Your task to perform on an android device: Open Android settings Image 0: 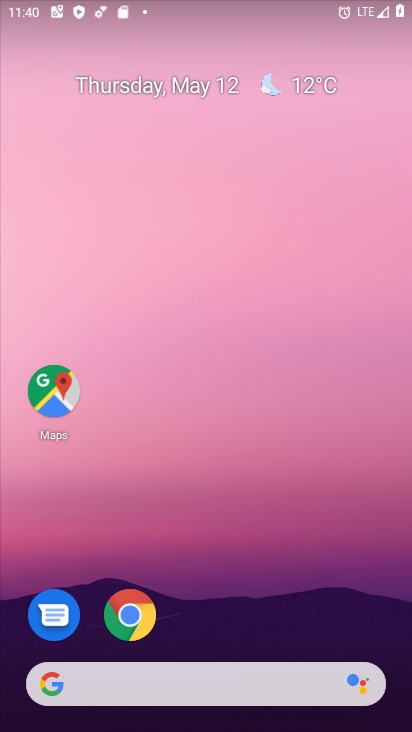
Step 0: drag from (255, 516) to (342, 42)
Your task to perform on an android device: Open Android settings Image 1: 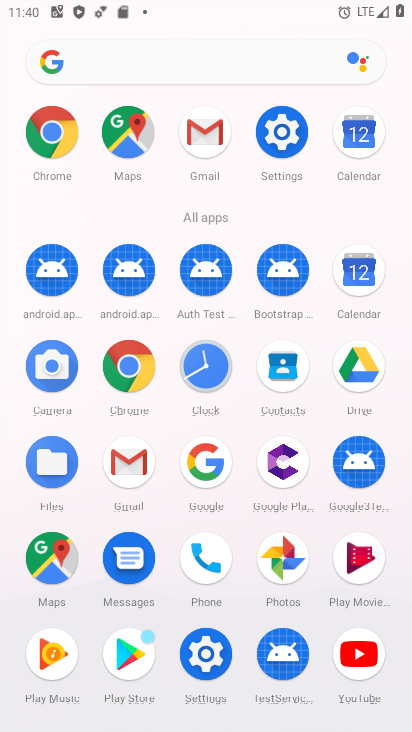
Step 1: click (290, 137)
Your task to perform on an android device: Open Android settings Image 2: 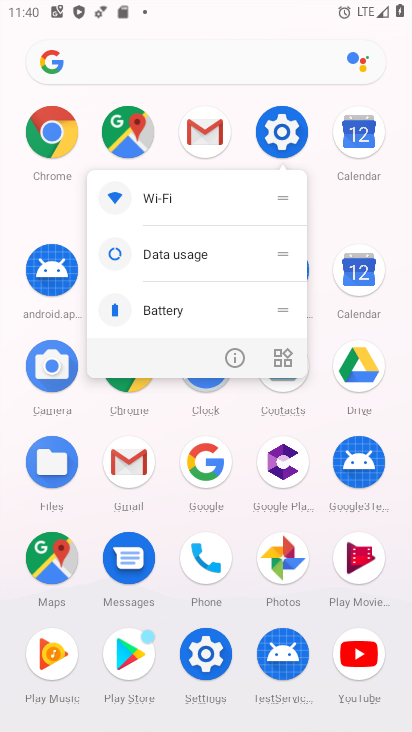
Step 2: click (290, 117)
Your task to perform on an android device: Open Android settings Image 3: 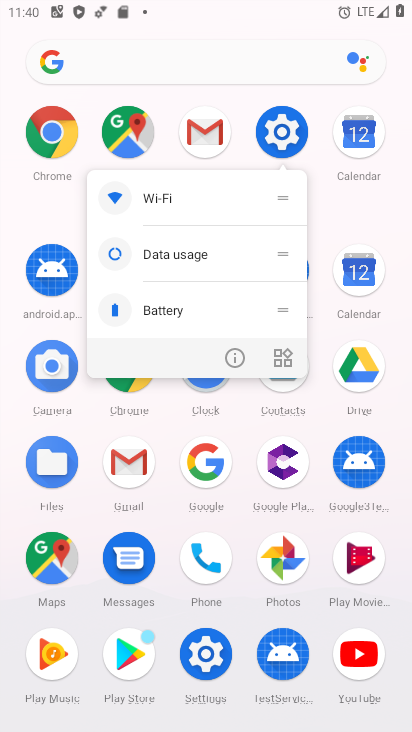
Step 3: click (282, 123)
Your task to perform on an android device: Open Android settings Image 4: 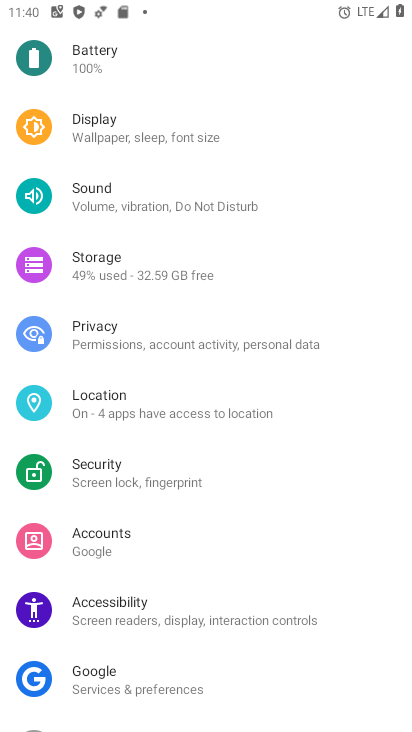
Step 4: drag from (196, 465) to (211, 140)
Your task to perform on an android device: Open Android settings Image 5: 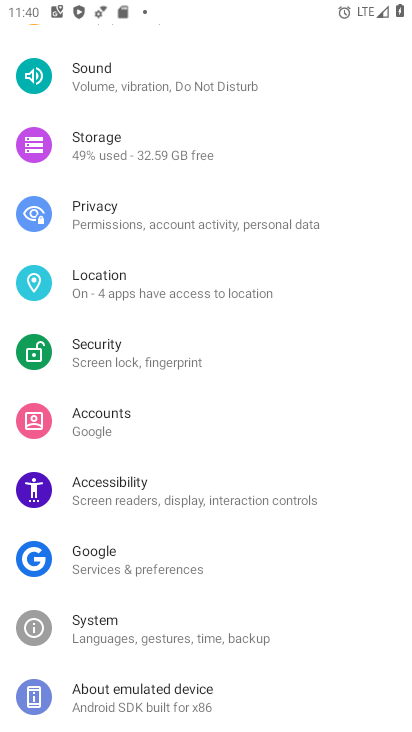
Step 5: click (145, 696)
Your task to perform on an android device: Open Android settings Image 6: 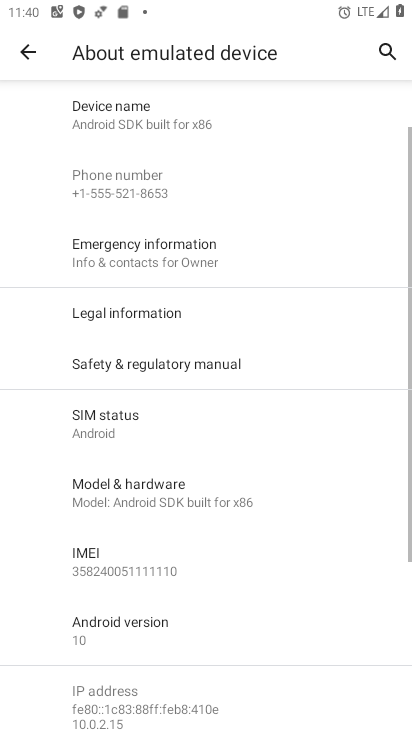
Step 6: task complete